Your task to perform on an android device: change the clock style Image 0: 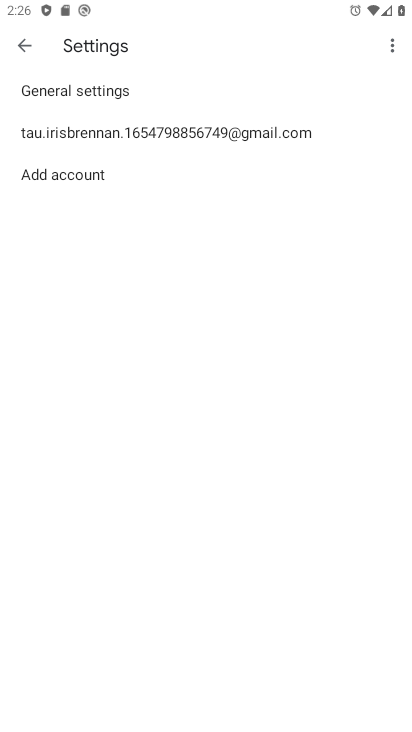
Step 0: press home button
Your task to perform on an android device: change the clock style Image 1: 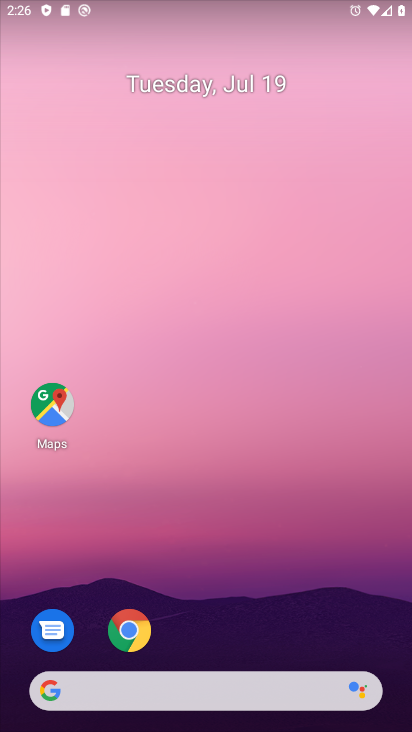
Step 1: drag from (258, 579) to (259, 28)
Your task to perform on an android device: change the clock style Image 2: 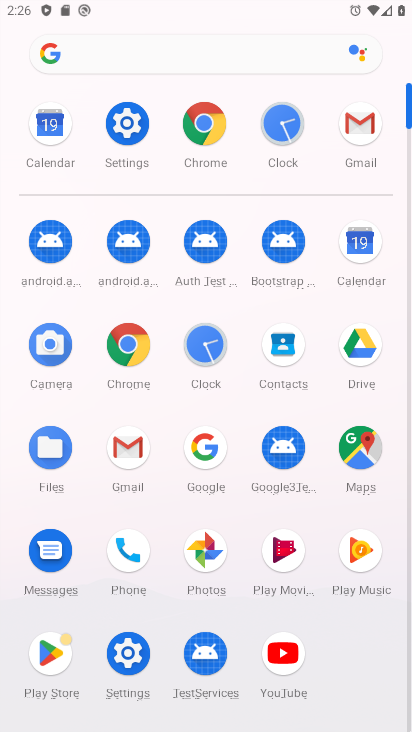
Step 2: click (284, 123)
Your task to perform on an android device: change the clock style Image 3: 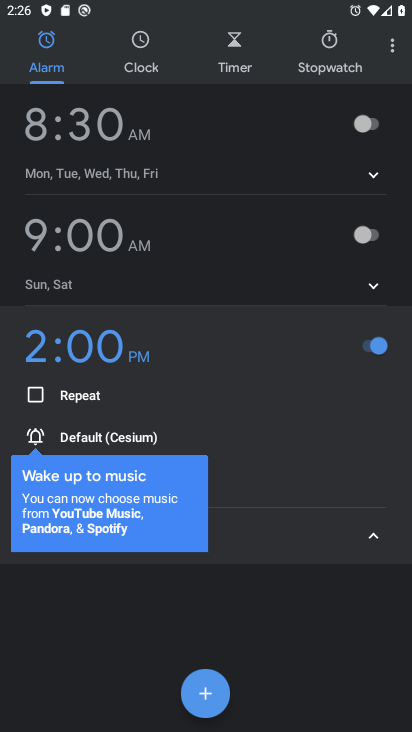
Step 3: click (147, 56)
Your task to perform on an android device: change the clock style Image 4: 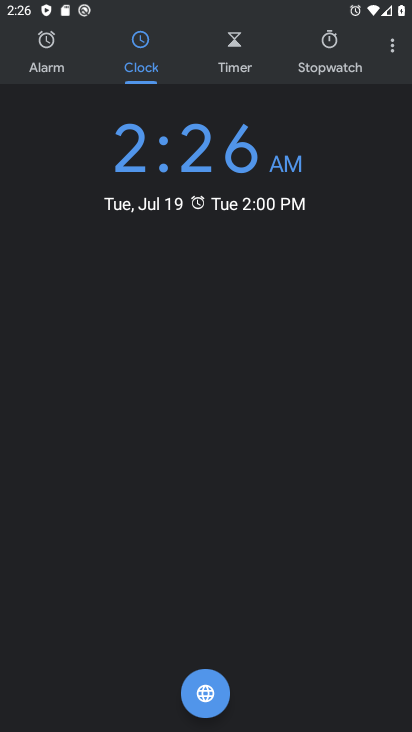
Step 4: click (397, 50)
Your task to perform on an android device: change the clock style Image 5: 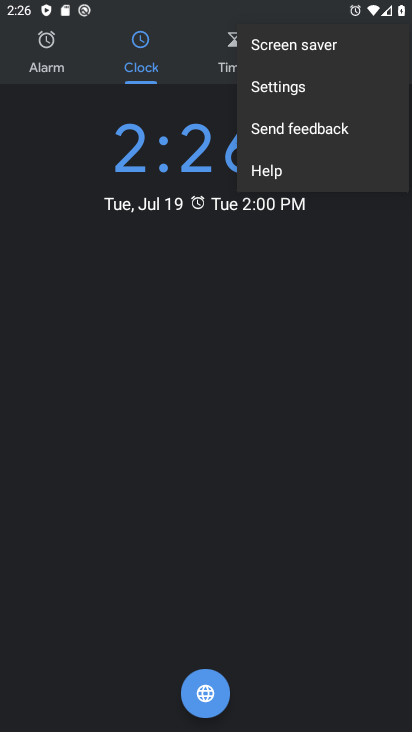
Step 5: click (325, 87)
Your task to perform on an android device: change the clock style Image 6: 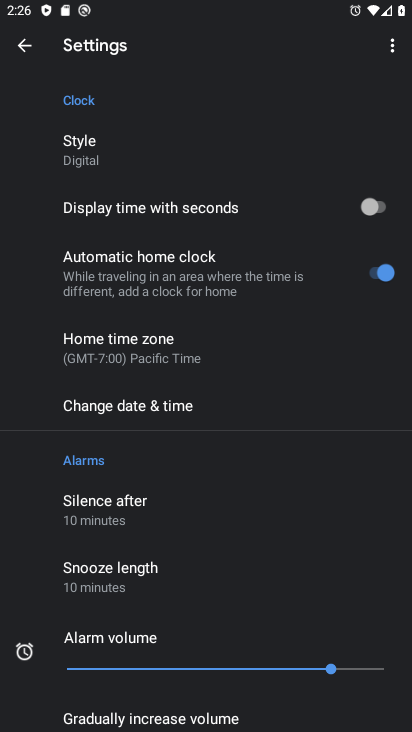
Step 6: click (96, 154)
Your task to perform on an android device: change the clock style Image 7: 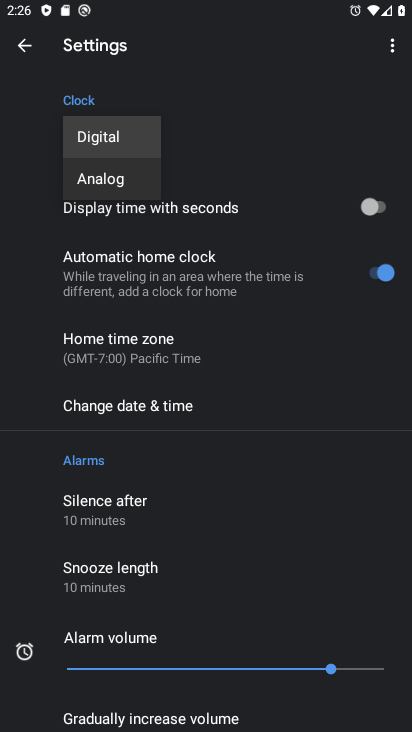
Step 7: click (115, 177)
Your task to perform on an android device: change the clock style Image 8: 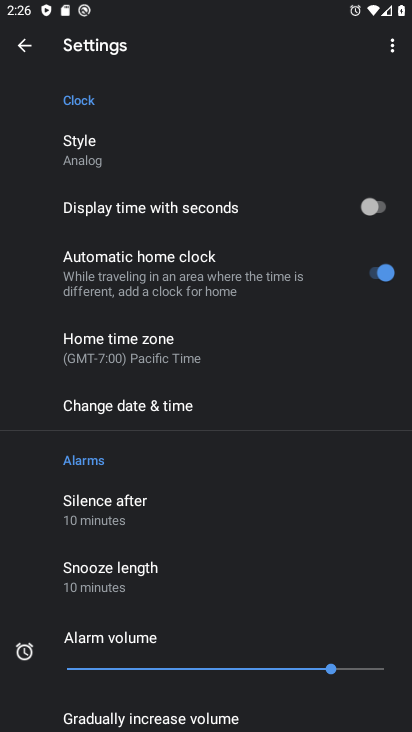
Step 8: click (31, 46)
Your task to perform on an android device: change the clock style Image 9: 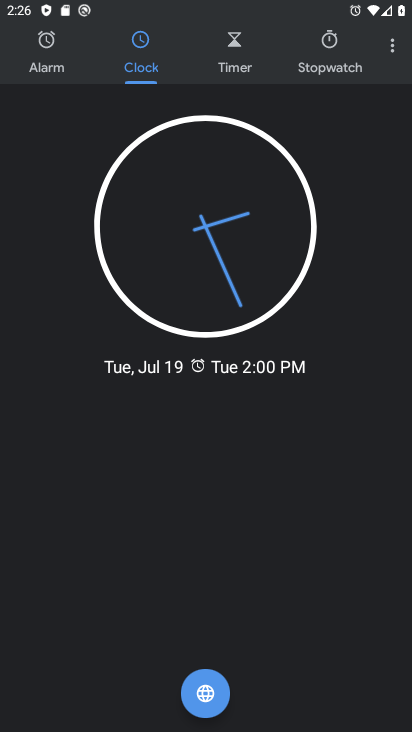
Step 9: task complete